Your task to perform on an android device: refresh tabs in the chrome app Image 0: 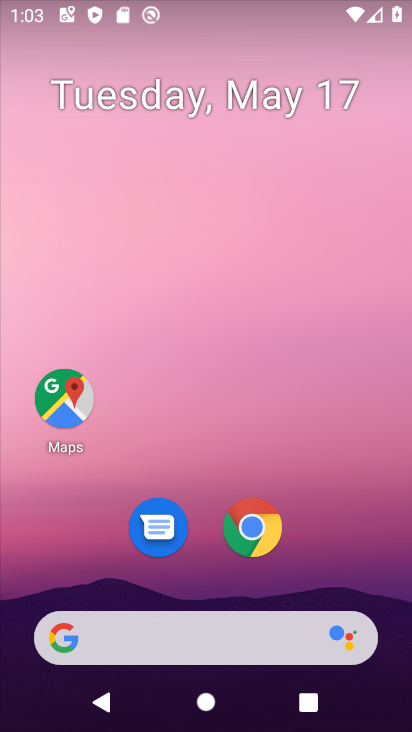
Step 0: click (277, 536)
Your task to perform on an android device: refresh tabs in the chrome app Image 1: 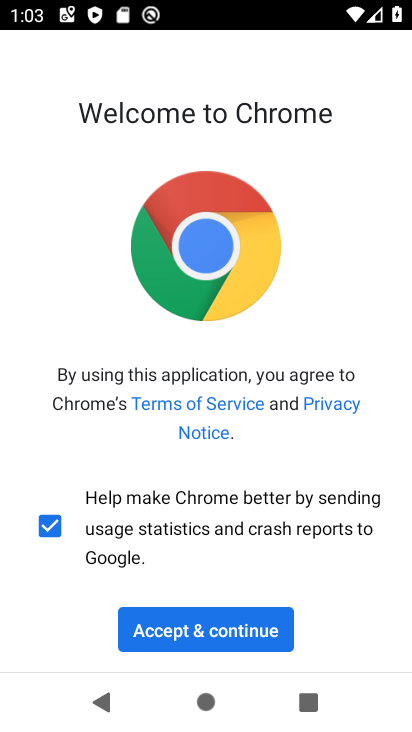
Step 1: click (241, 641)
Your task to perform on an android device: refresh tabs in the chrome app Image 2: 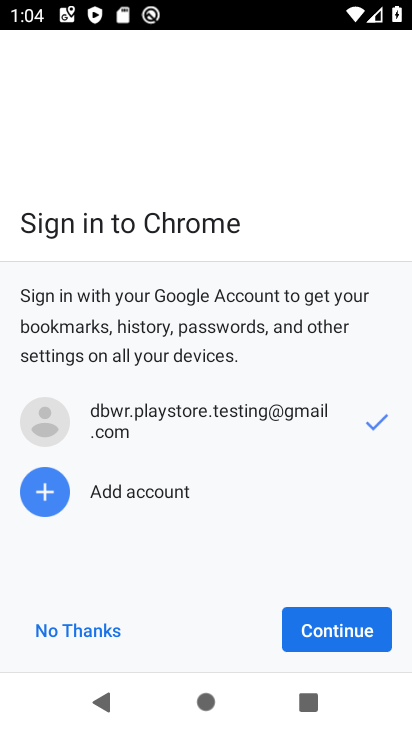
Step 2: click (337, 651)
Your task to perform on an android device: refresh tabs in the chrome app Image 3: 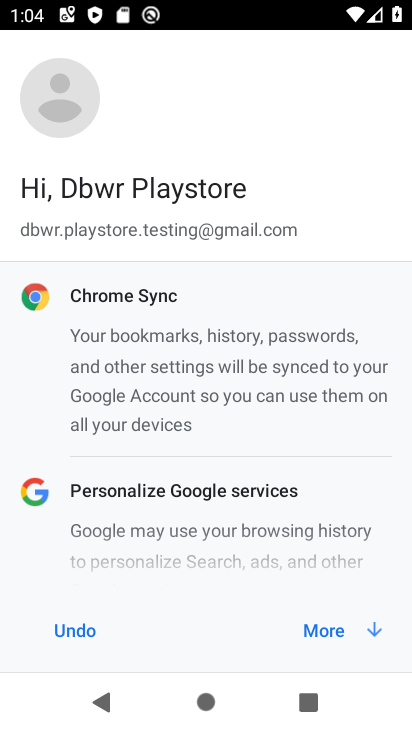
Step 3: click (382, 627)
Your task to perform on an android device: refresh tabs in the chrome app Image 4: 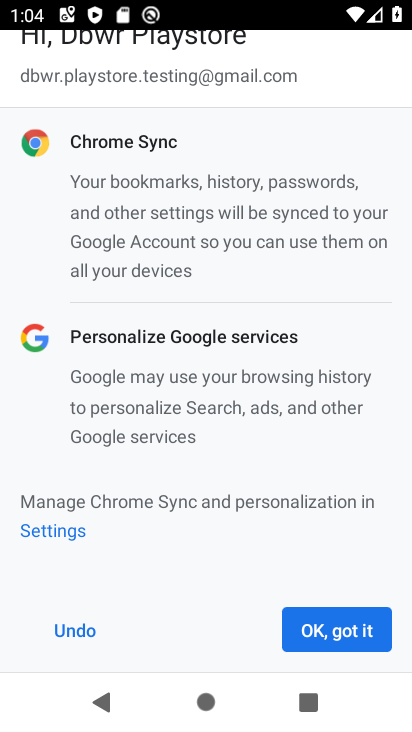
Step 4: click (352, 629)
Your task to perform on an android device: refresh tabs in the chrome app Image 5: 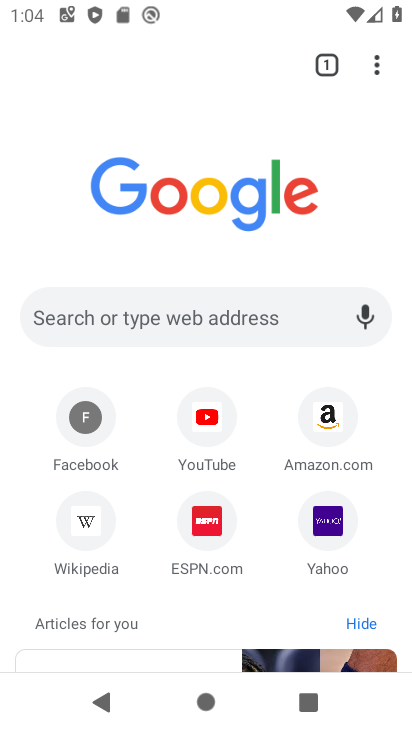
Step 5: click (386, 72)
Your task to perform on an android device: refresh tabs in the chrome app Image 6: 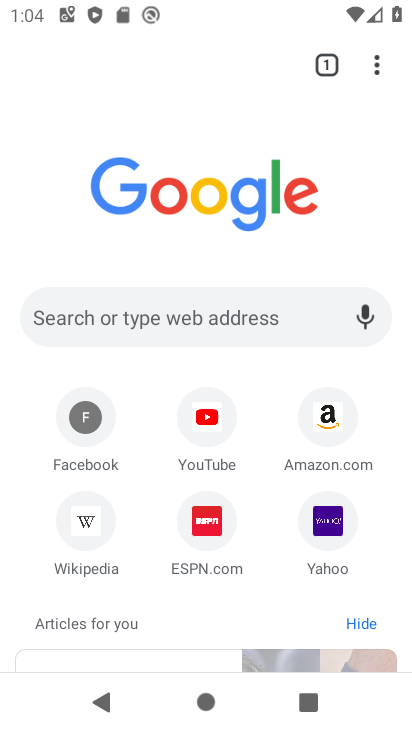
Step 6: click (389, 68)
Your task to perform on an android device: refresh tabs in the chrome app Image 7: 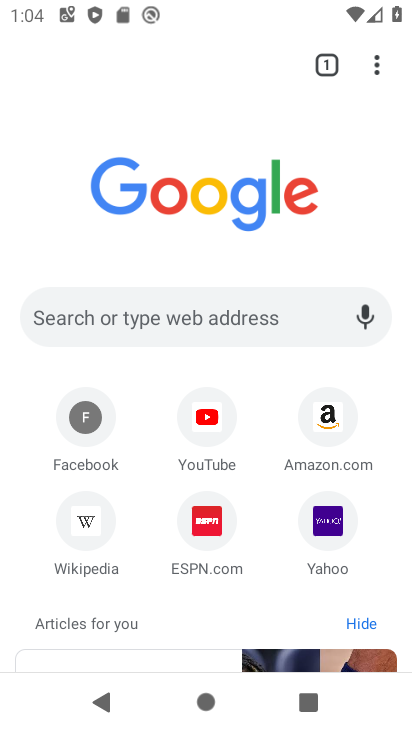
Step 7: task complete